Your task to perform on an android device: open app "Etsy: Buy & Sell Unique Items" Image 0: 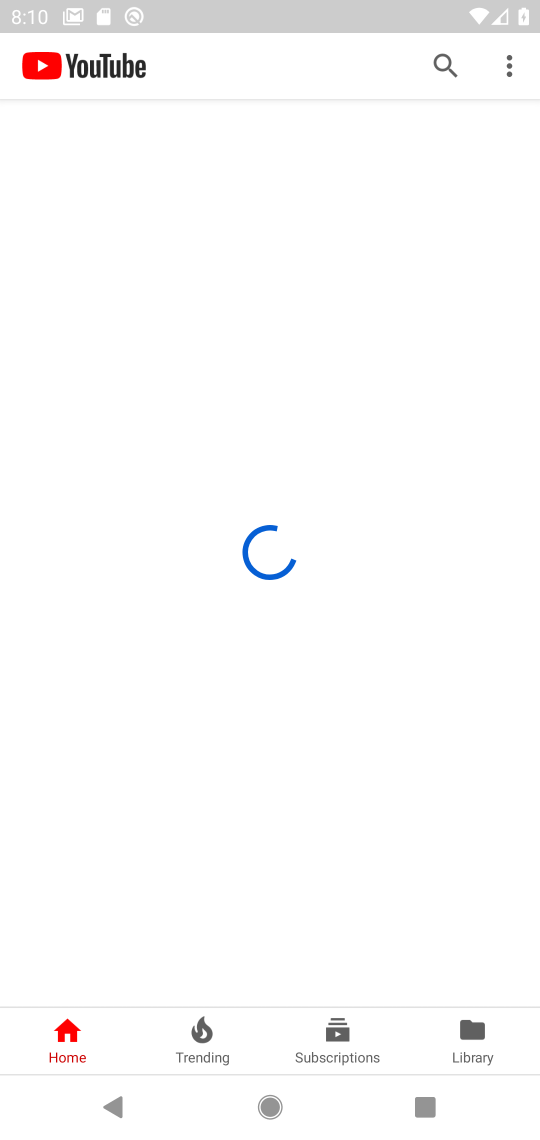
Step 0: press home button
Your task to perform on an android device: open app "Etsy: Buy & Sell Unique Items" Image 1: 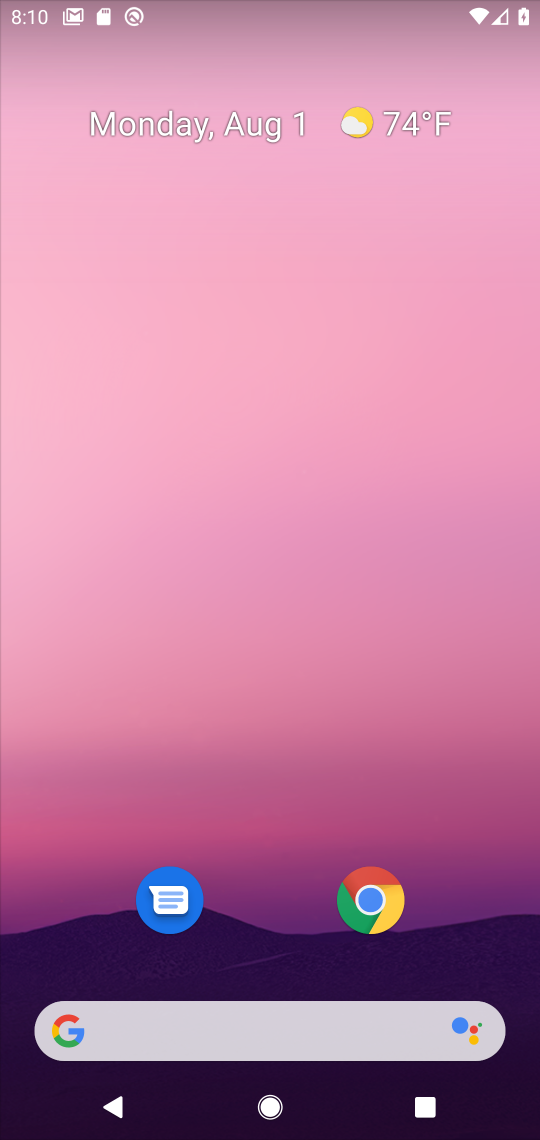
Step 1: drag from (287, 917) to (218, 41)
Your task to perform on an android device: open app "Etsy: Buy & Sell Unique Items" Image 2: 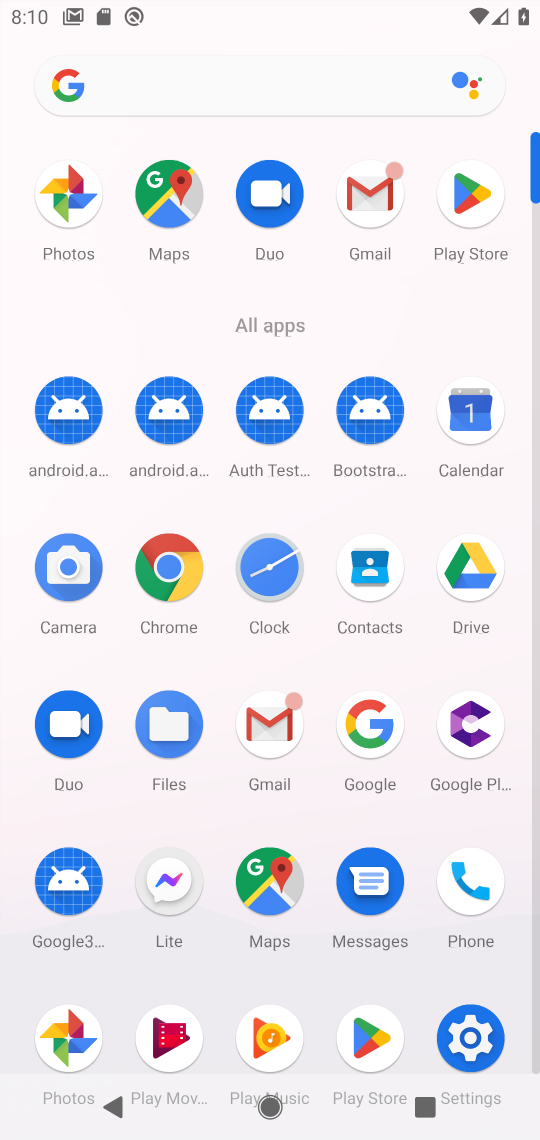
Step 2: click (361, 1035)
Your task to perform on an android device: open app "Etsy: Buy & Sell Unique Items" Image 3: 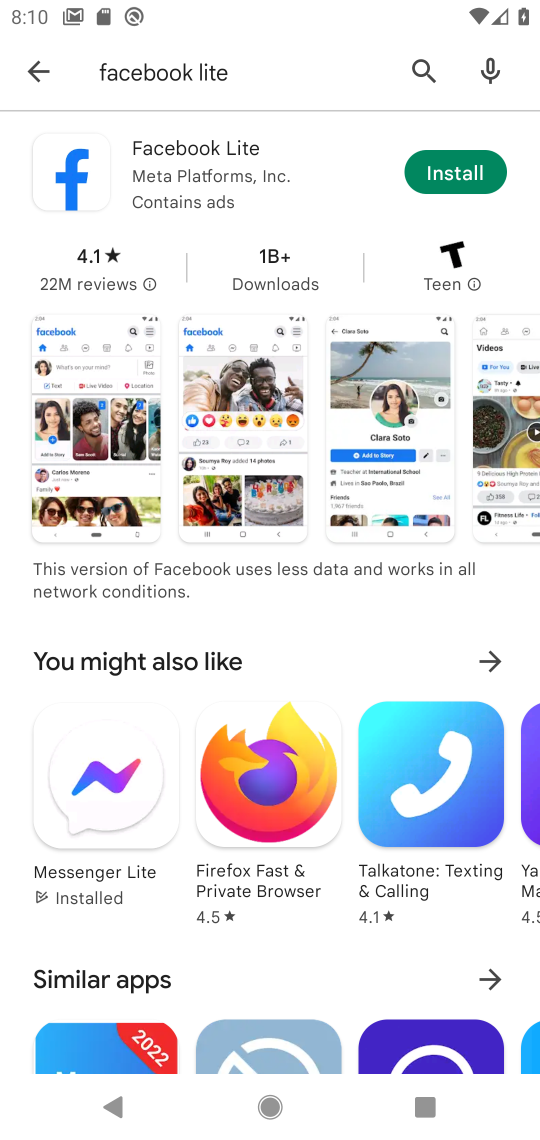
Step 3: click (15, 81)
Your task to perform on an android device: open app "Etsy: Buy & Sell Unique Items" Image 4: 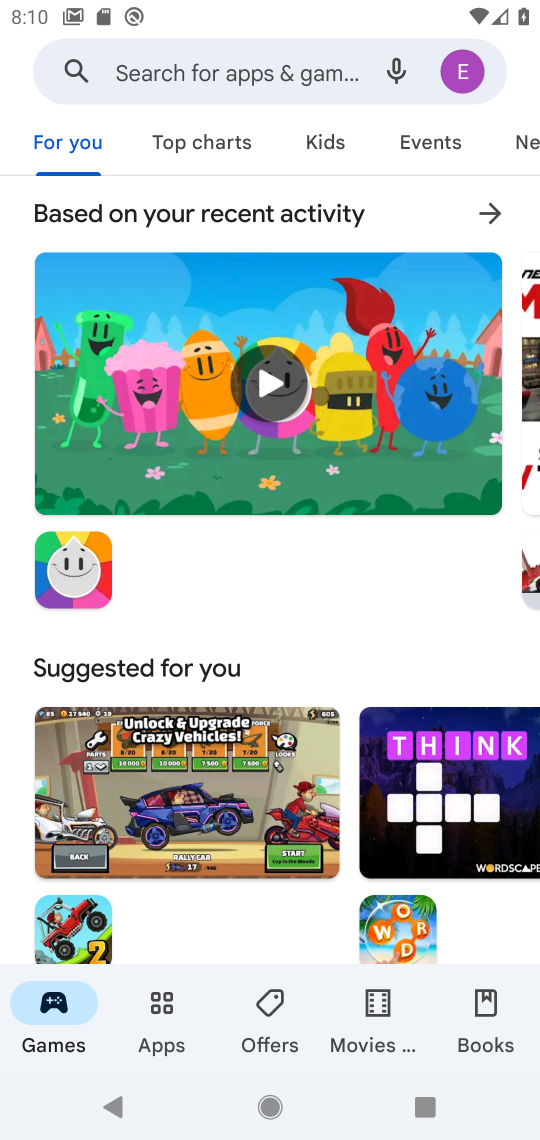
Step 4: click (193, 78)
Your task to perform on an android device: open app "Etsy: Buy & Sell Unique Items" Image 5: 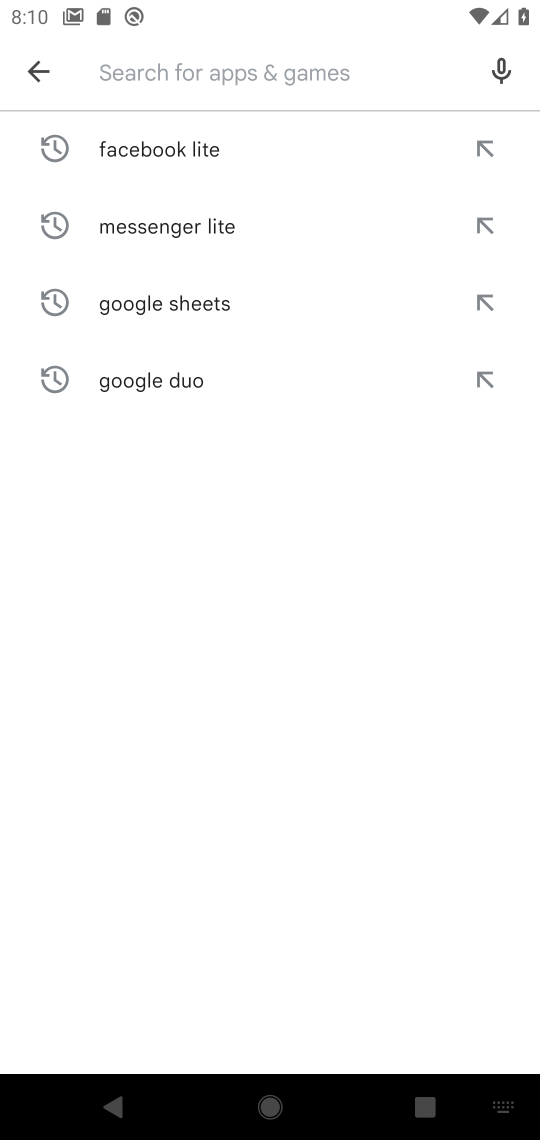
Step 5: type "Etsy: Buy & Sell Unique Items"
Your task to perform on an android device: open app "Etsy: Buy & Sell Unique Items" Image 6: 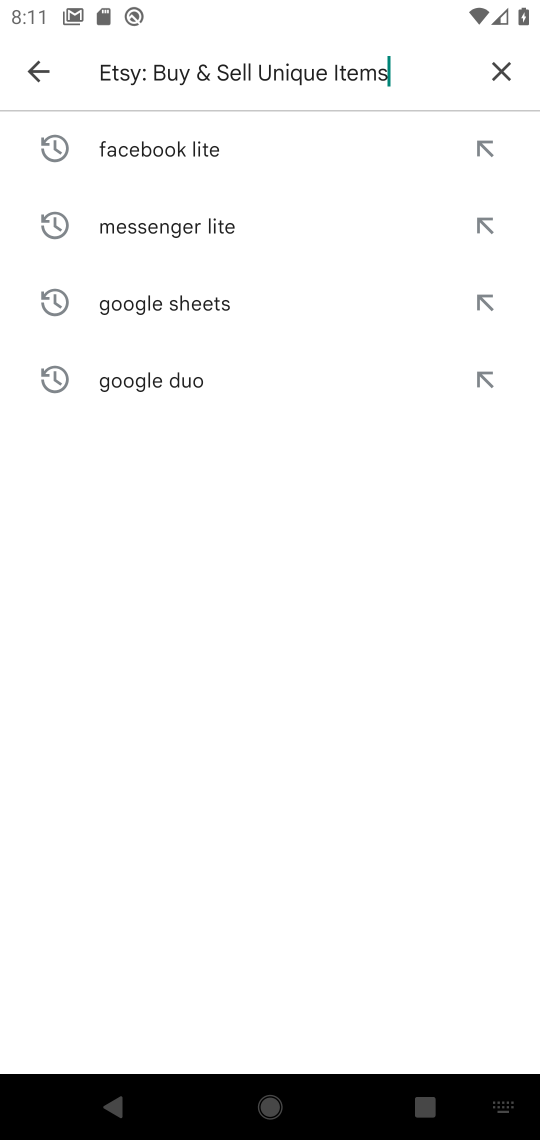
Step 6: type ""
Your task to perform on an android device: open app "Etsy: Buy & Sell Unique Items" Image 7: 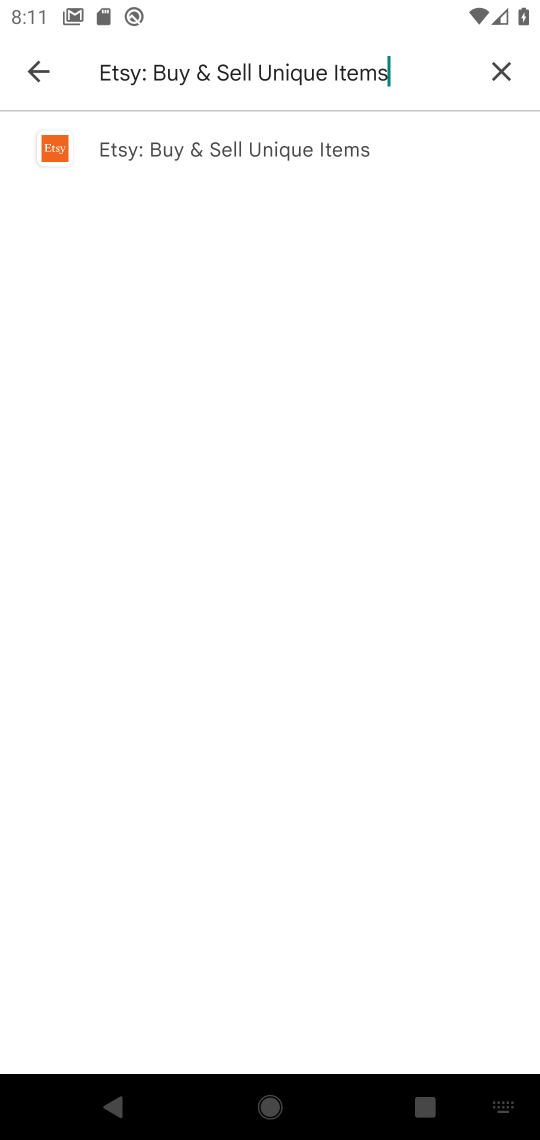
Step 7: click (200, 137)
Your task to perform on an android device: open app "Etsy: Buy & Sell Unique Items" Image 8: 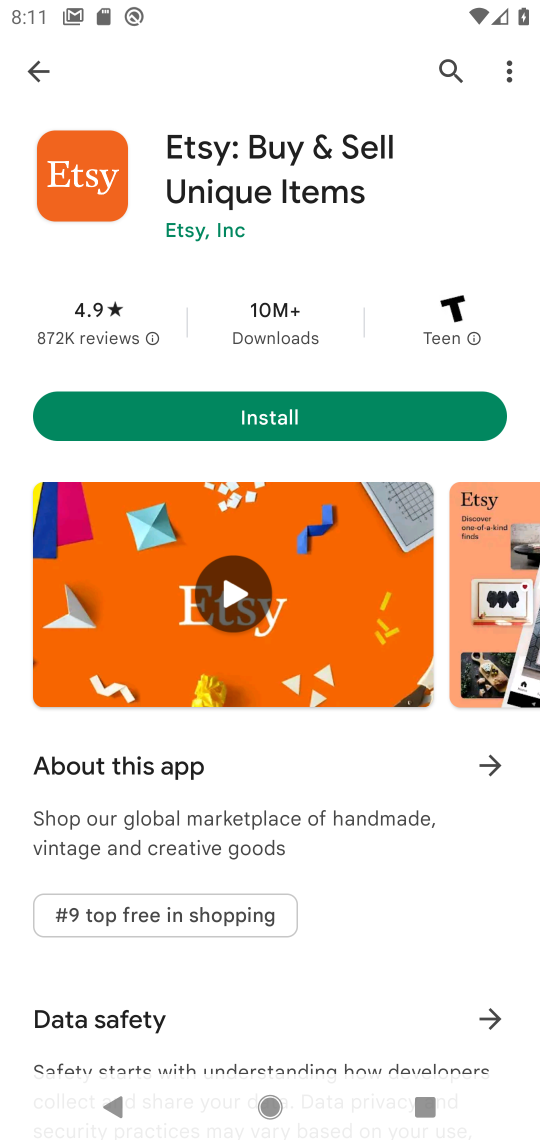
Step 8: task complete